Your task to perform on an android device: When is my next appointment? Image 0: 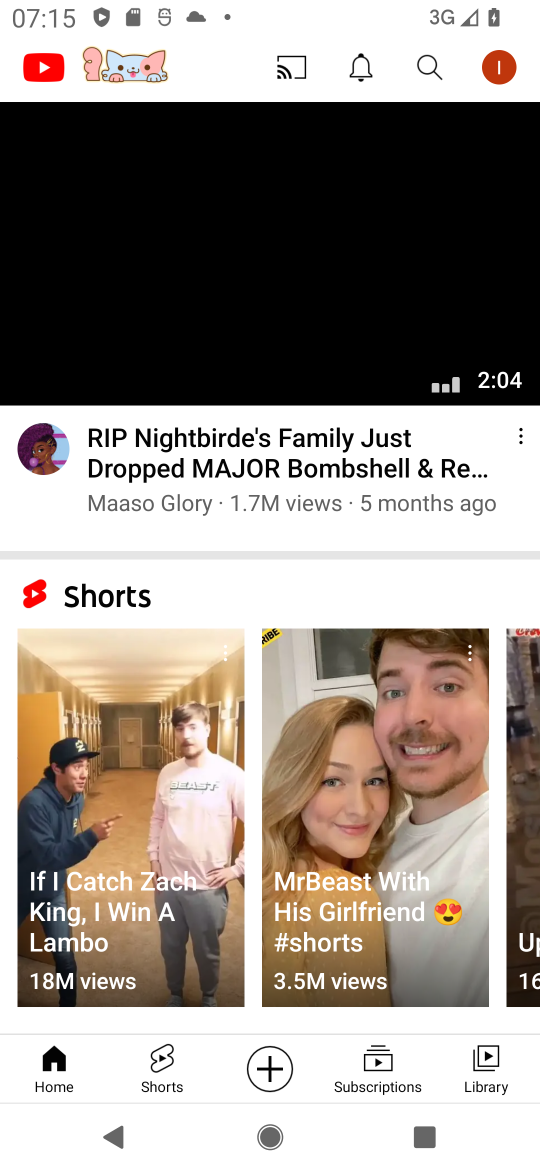
Step 0: press home button
Your task to perform on an android device: When is my next appointment? Image 1: 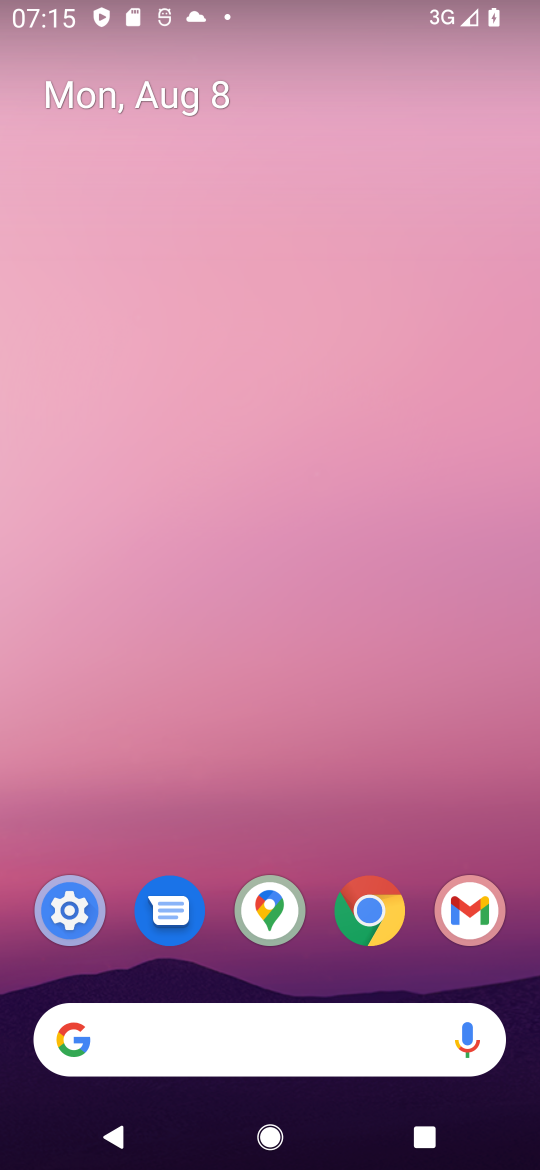
Step 1: drag from (262, 1061) to (319, 324)
Your task to perform on an android device: When is my next appointment? Image 2: 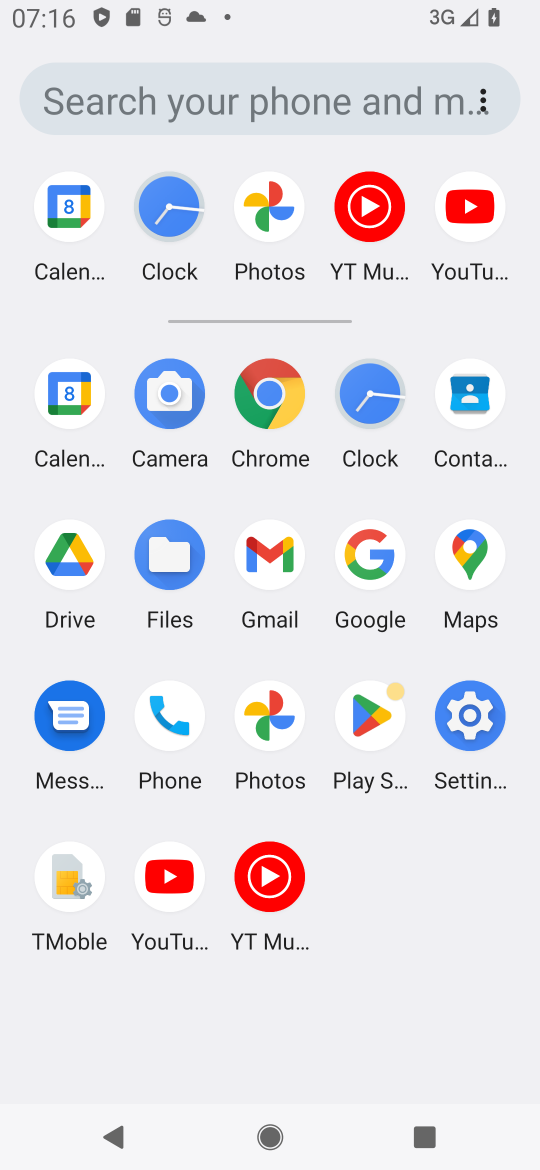
Step 2: click (67, 208)
Your task to perform on an android device: When is my next appointment? Image 3: 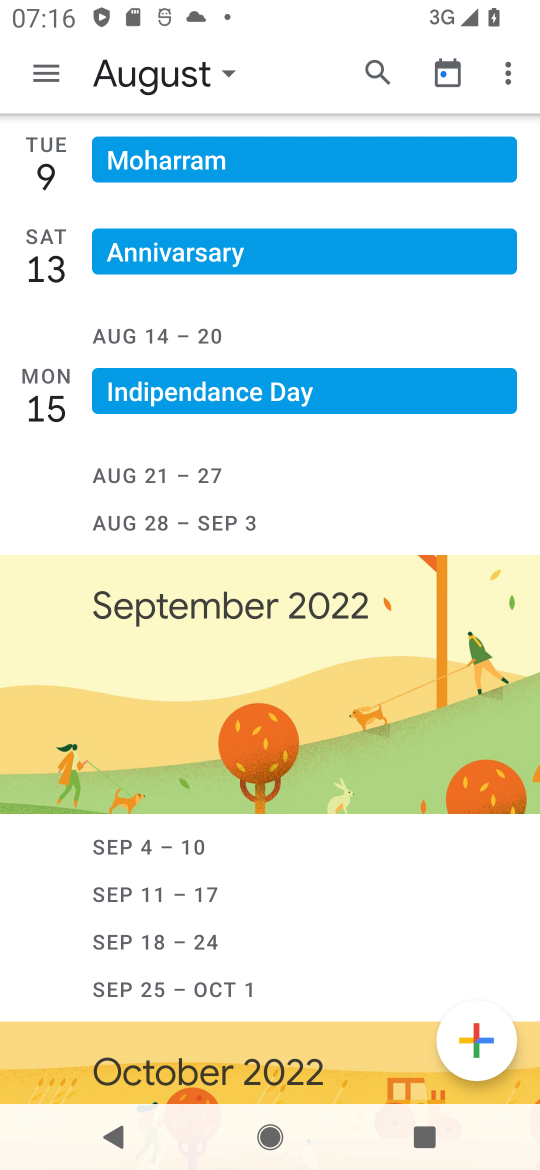
Step 3: click (448, 80)
Your task to perform on an android device: When is my next appointment? Image 4: 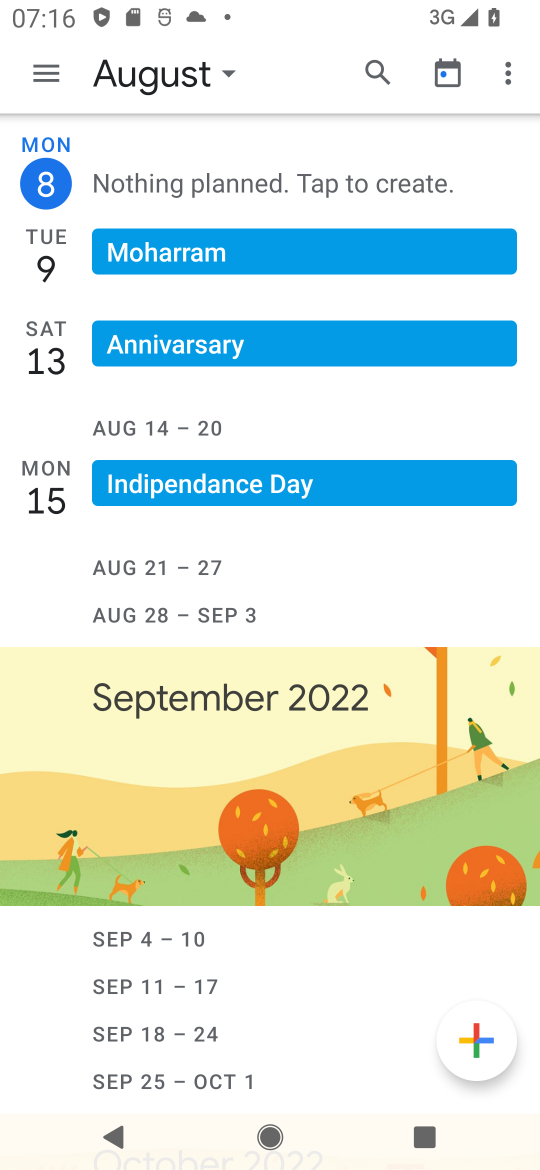
Step 4: click (232, 77)
Your task to perform on an android device: When is my next appointment? Image 5: 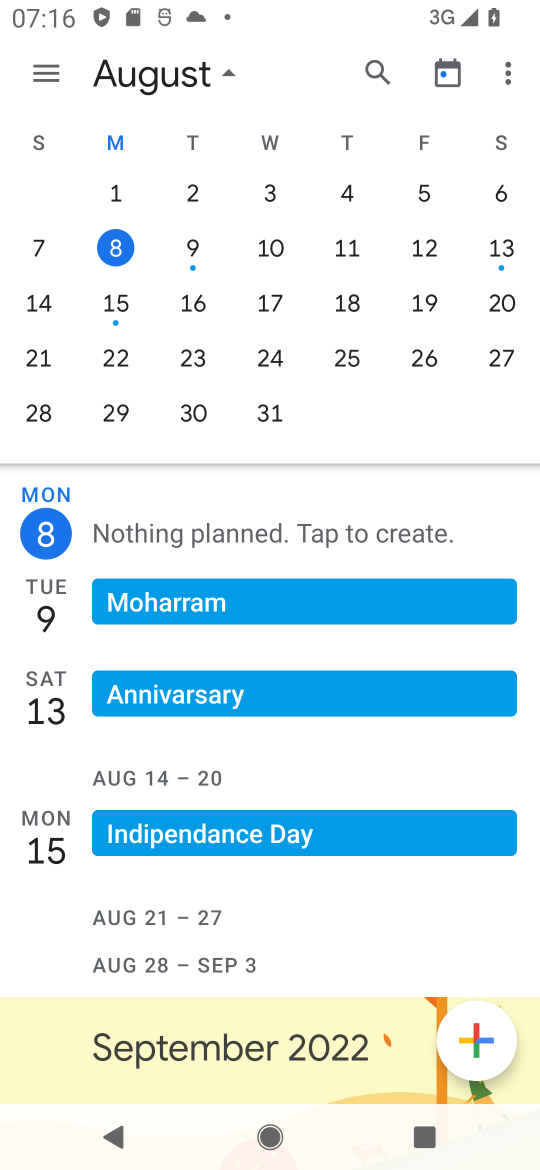
Step 5: click (510, 250)
Your task to perform on an android device: When is my next appointment? Image 6: 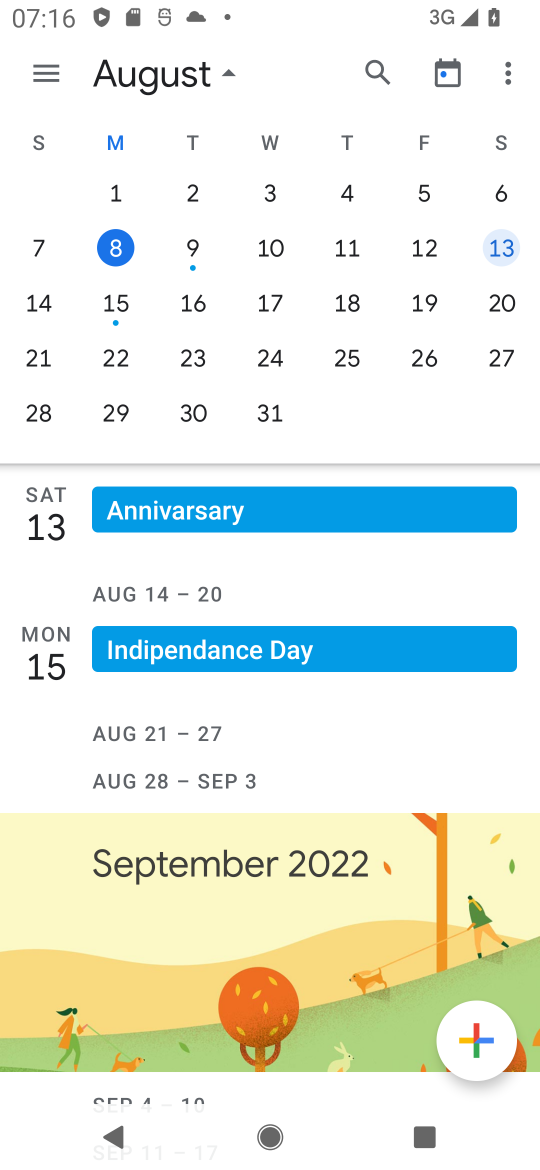
Step 6: click (45, 73)
Your task to perform on an android device: When is my next appointment? Image 7: 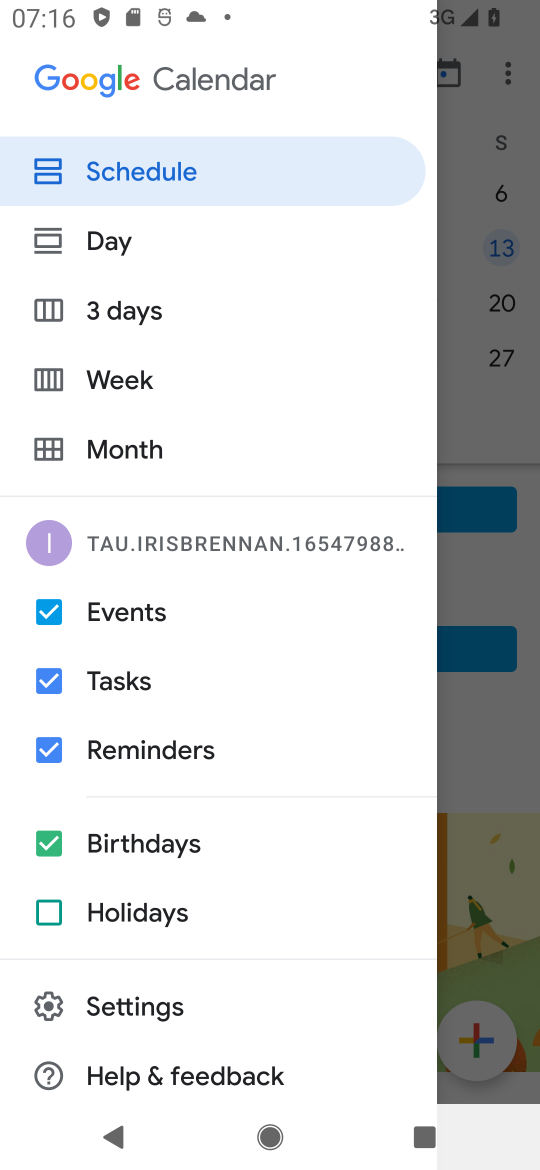
Step 7: click (187, 180)
Your task to perform on an android device: When is my next appointment? Image 8: 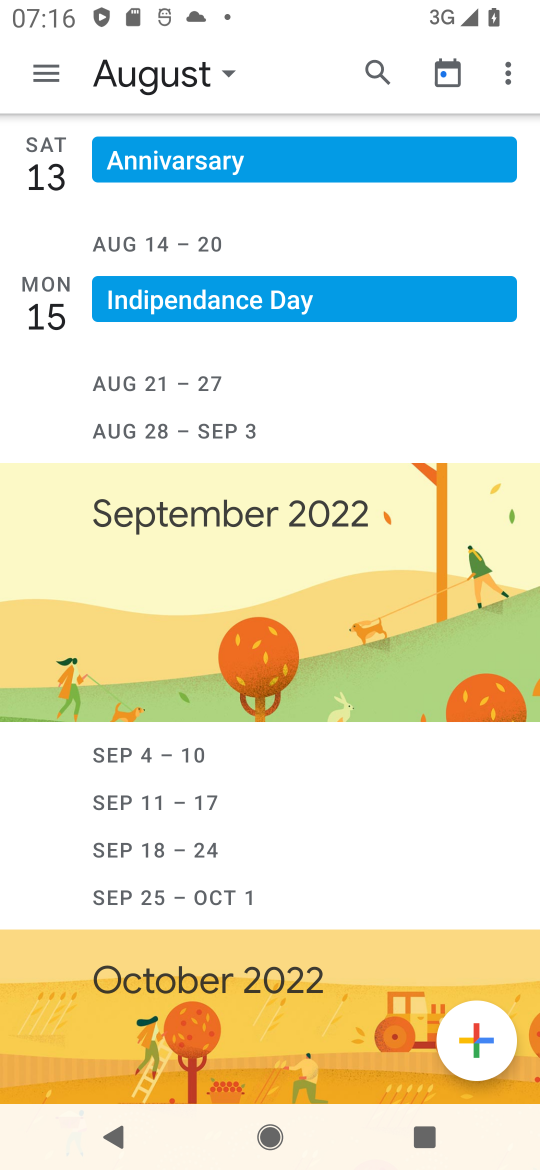
Step 8: task complete